Your task to perform on an android device: turn on location history Image 0: 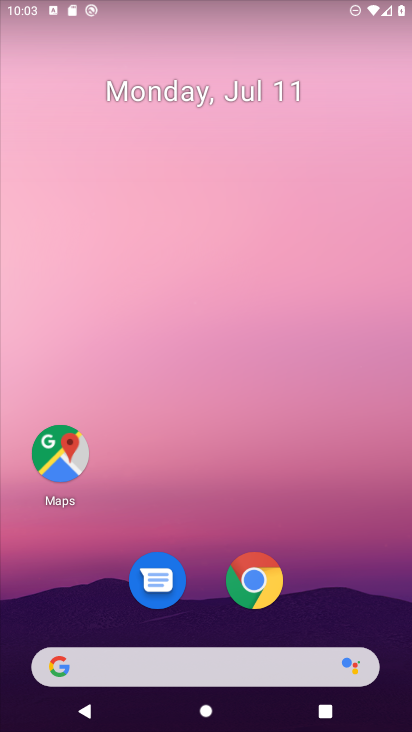
Step 0: drag from (241, 457) to (266, 63)
Your task to perform on an android device: turn on location history Image 1: 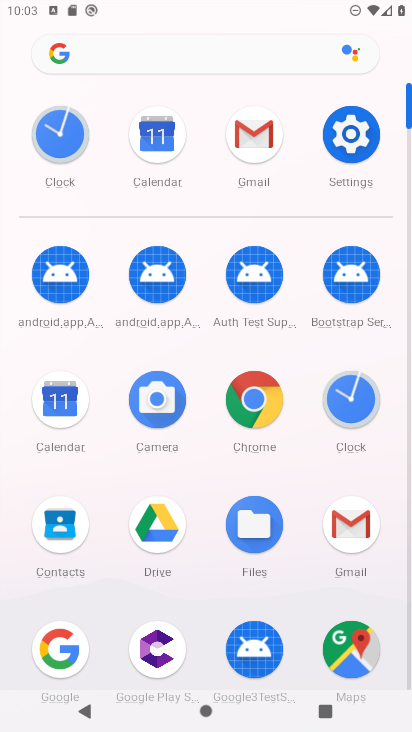
Step 1: click (344, 144)
Your task to perform on an android device: turn on location history Image 2: 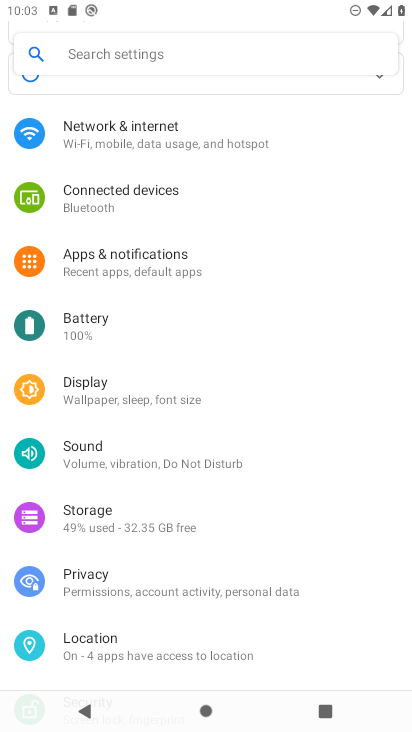
Step 2: drag from (244, 485) to (254, 353)
Your task to perform on an android device: turn on location history Image 3: 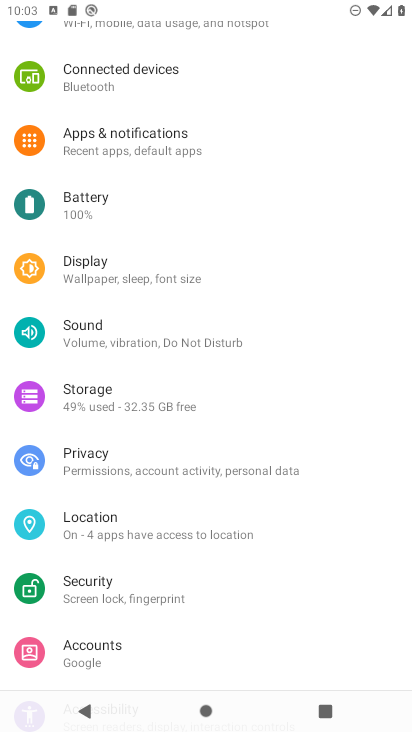
Step 3: click (131, 519)
Your task to perform on an android device: turn on location history Image 4: 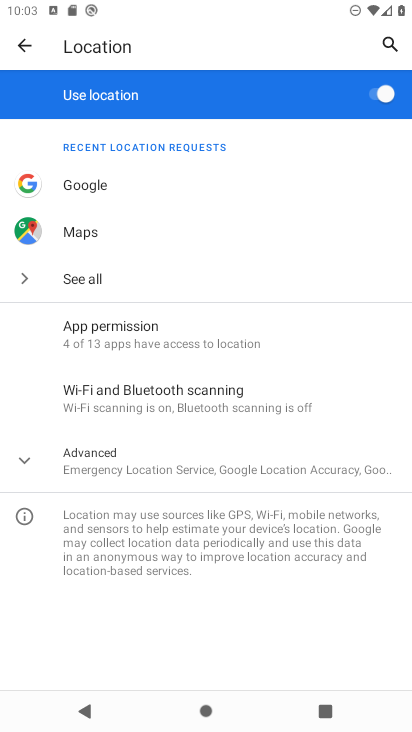
Step 4: click (22, 453)
Your task to perform on an android device: turn on location history Image 5: 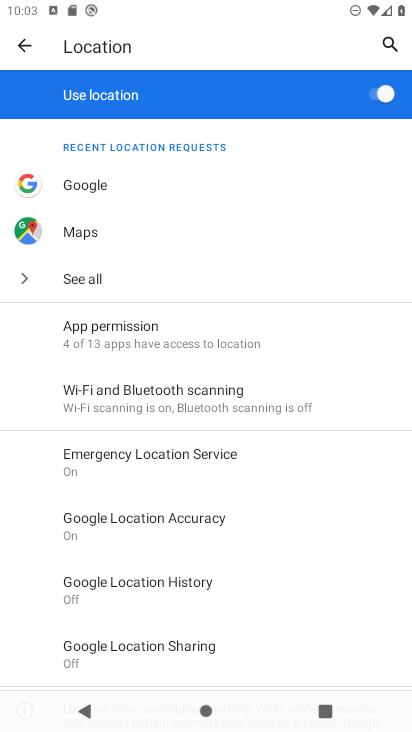
Step 5: click (184, 586)
Your task to perform on an android device: turn on location history Image 6: 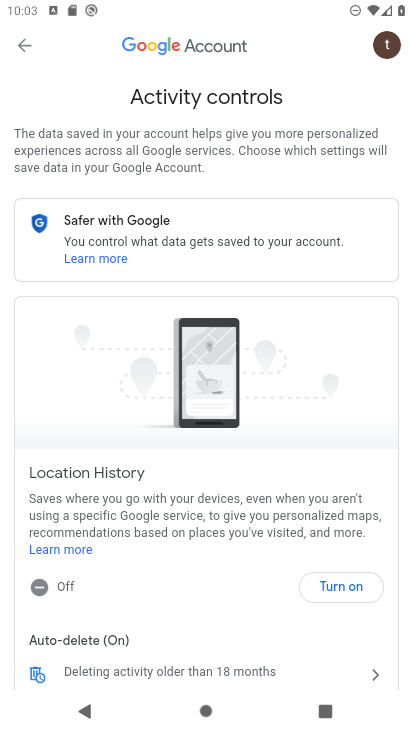
Step 6: click (332, 582)
Your task to perform on an android device: turn on location history Image 7: 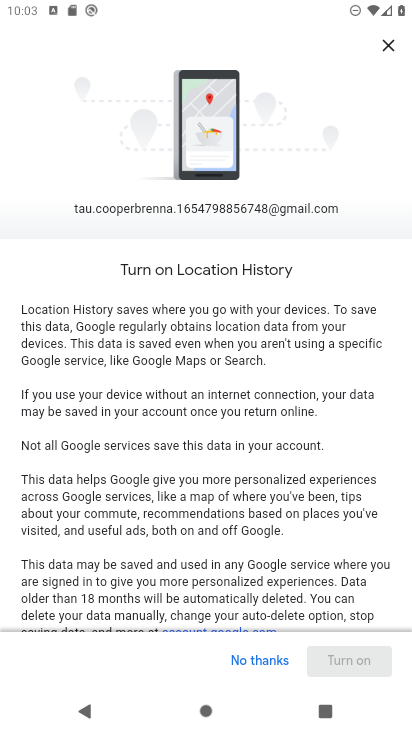
Step 7: drag from (274, 530) to (279, 190)
Your task to perform on an android device: turn on location history Image 8: 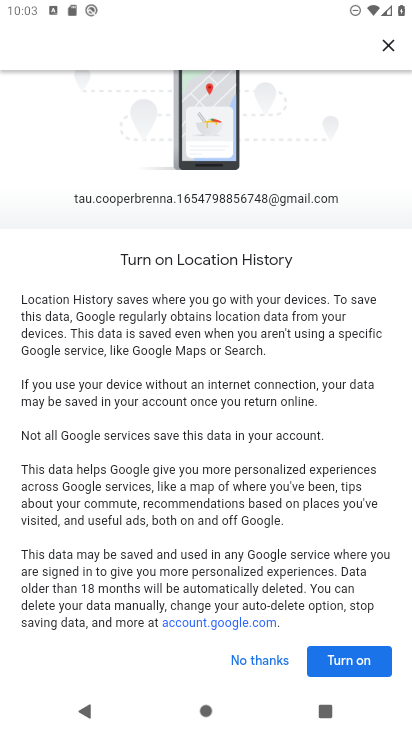
Step 8: click (371, 656)
Your task to perform on an android device: turn on location history Image 9: 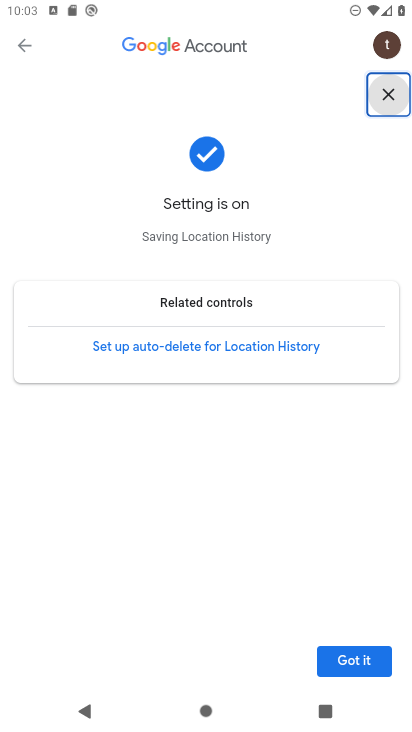
Step 9: click (370, 654)
Your task to perform on an android device: turn on location history Image 10: 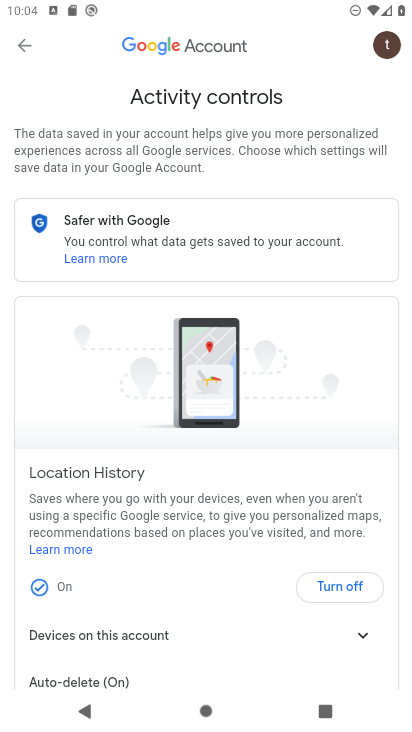
Step 10: task complete